Your task to perform on an android device: check the backup settings in the google photos Image 0: 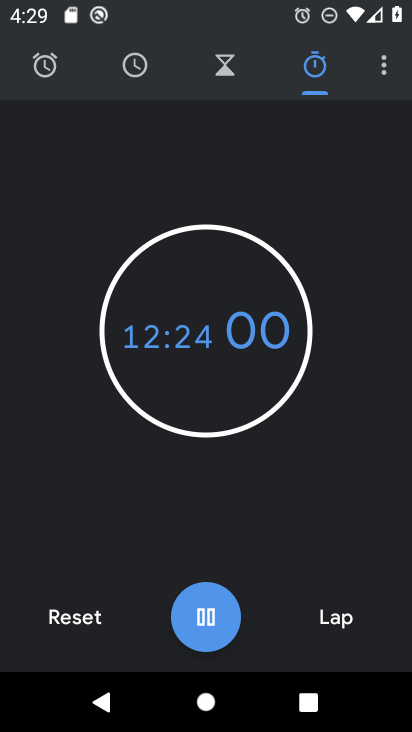
Step 0: press home button
Your task to perform on an android device: check the backup settings in the google photos Image 1: 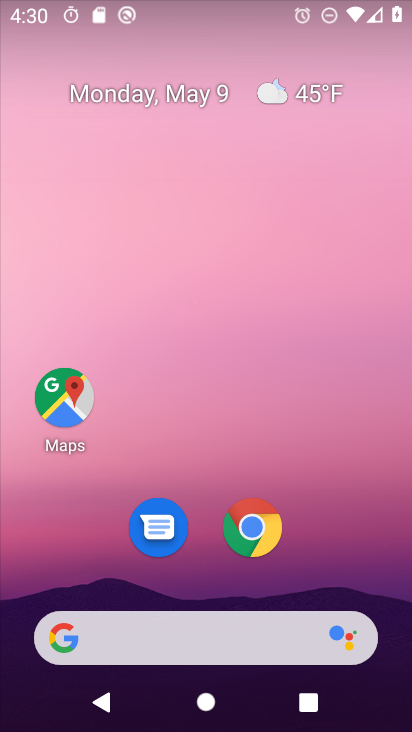
Step 1: drag from (374, 594) to (311, 212)
Your task to perform on an android device: check the backup settings in the google photos Image 2: 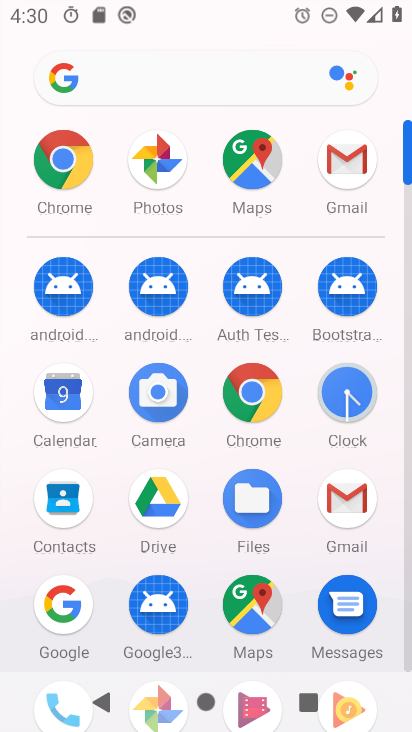
Step 2: click (158, 156)
Your task to perform on an android device: check the backup settings in the google photos Image 3: 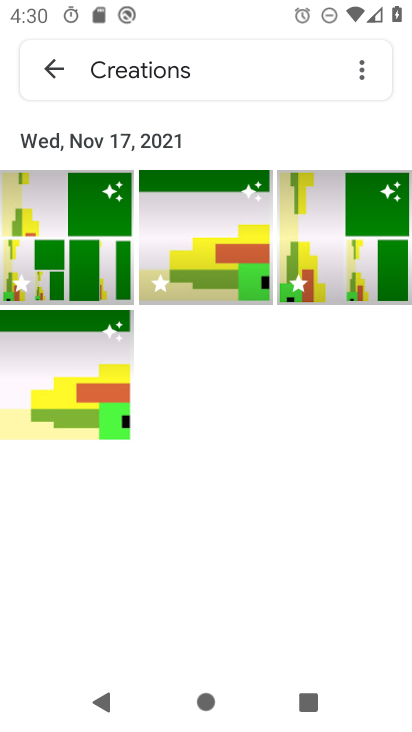
Step 3: click (49, 59)
Your task to perform on an android device: check the backup settings in the google photos Image 4: 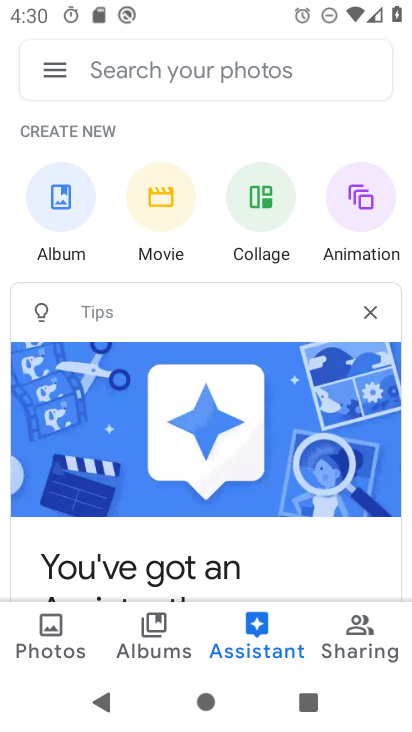
Step 4: click (49, 59)
Your task to perform on an android device: check the backup settings in the google photos Image 5: 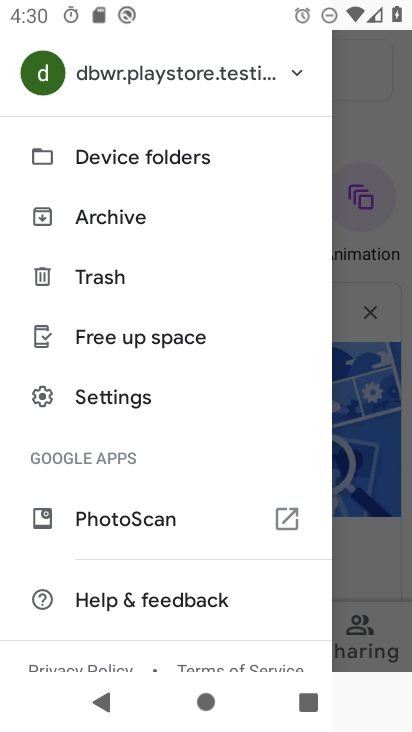
Step 5: click (119, 412)
Your task to perform on an android device: check the backup settings in the google photos Image 6: 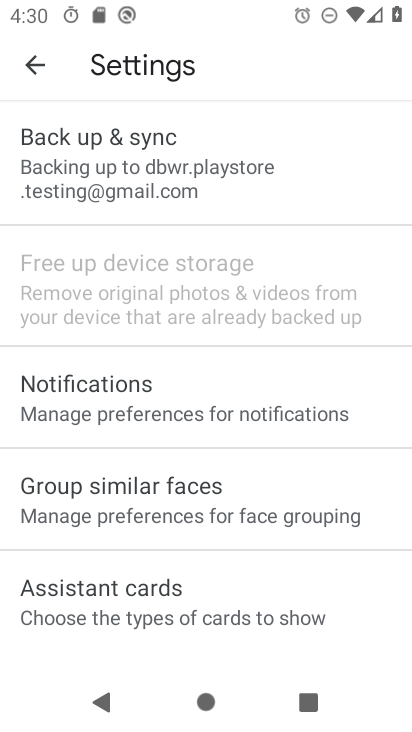
Step 6: click (230, 180)
Your task to perform on an android device: check the backup settings in the google photos Image 7: 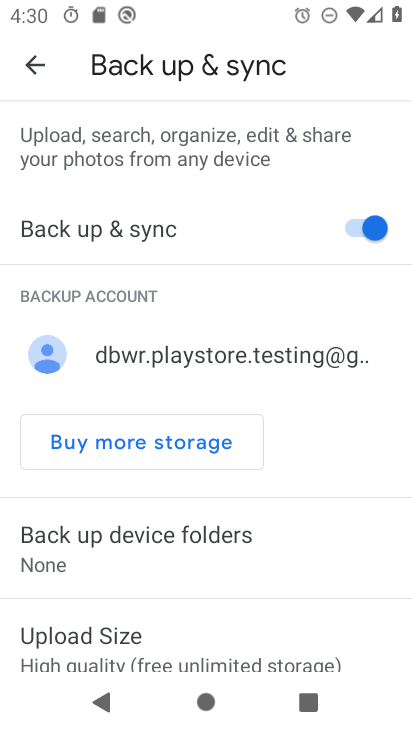
Step 7: task complete